Your task to perform on an android device: Open the map Image 0: 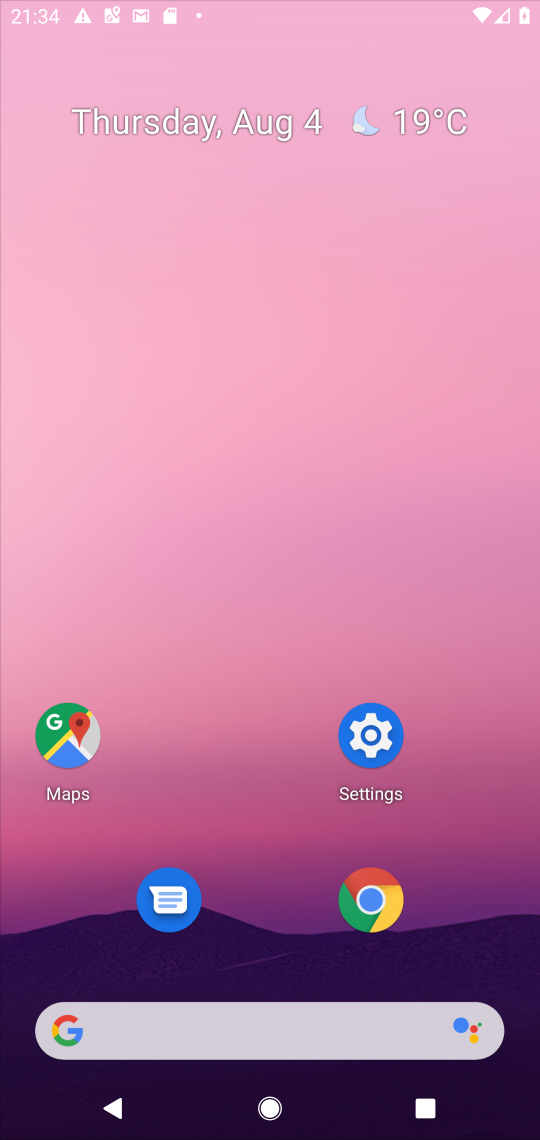
Step 0: press home button
Your task to perform on an android device: Open the map Image 1: 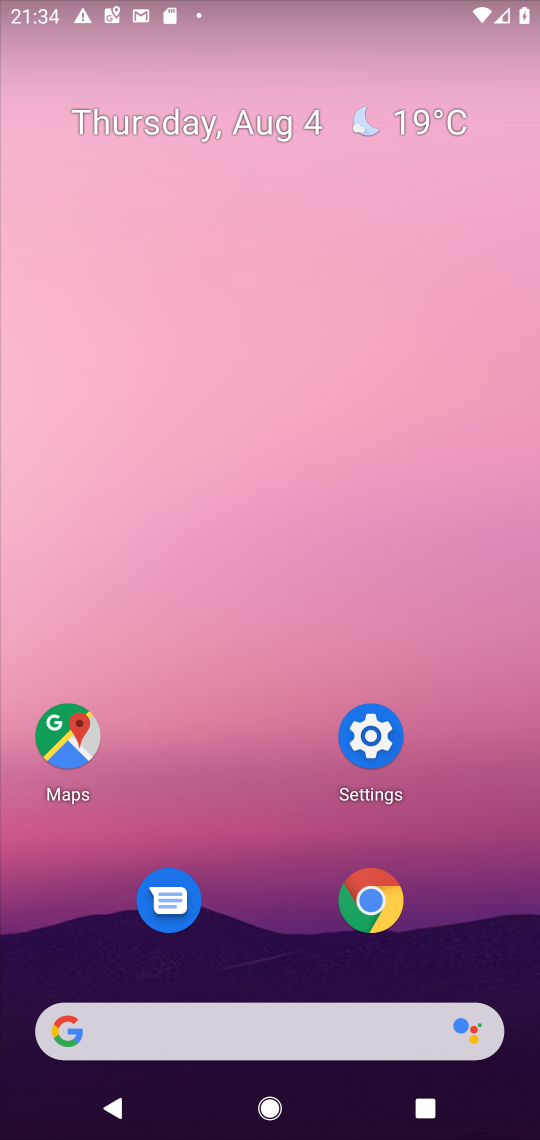
Step 1: click (68, 729)
Your task to perform on an android device: Open the map Image 2: 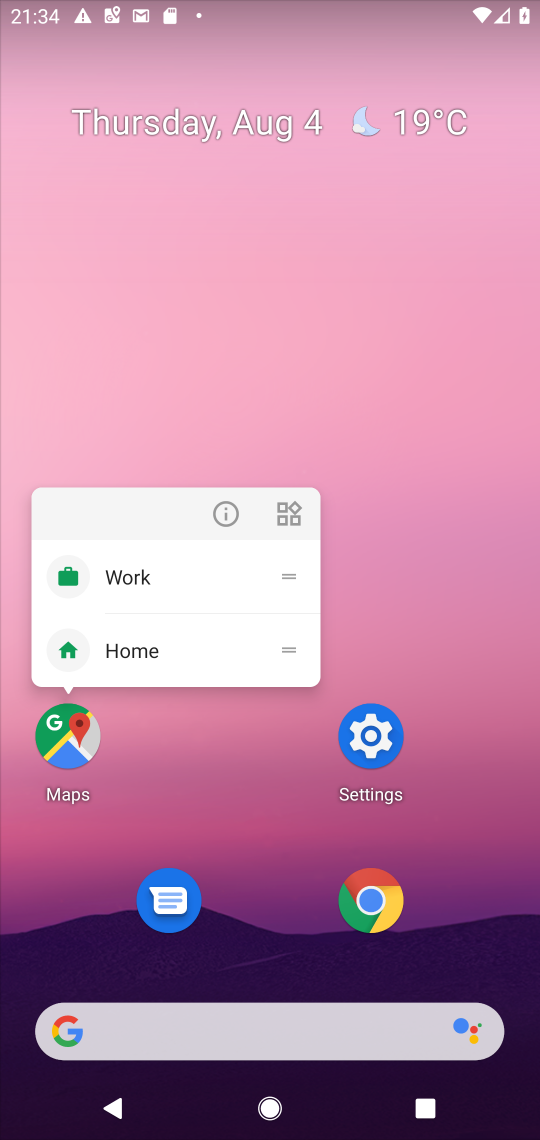
Step 2: click (55, 751)
Your task to perform on an android device: Open the map Image 3: 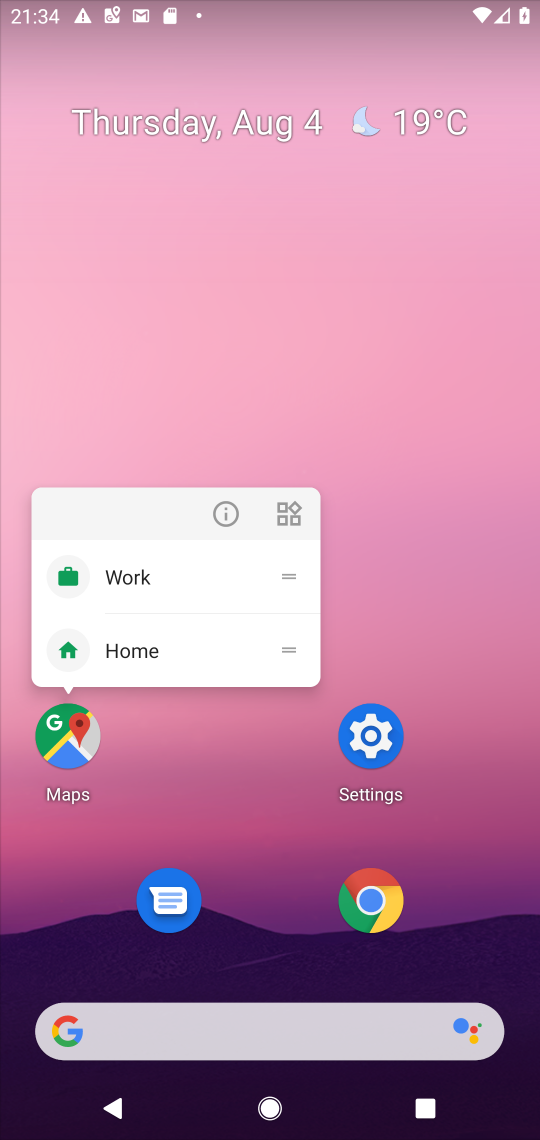
Step 3: click (55, 754)
Your task to perform on an android device: Open the map Image 4: 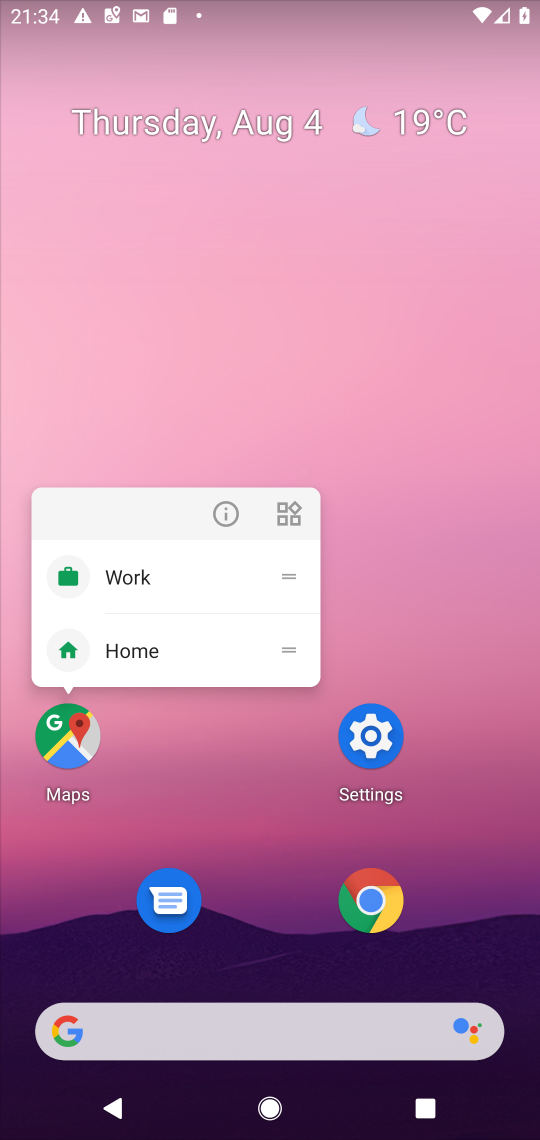
Step 4: click (72, 733)
Your task to perform on an android device: Open the map Image 5: 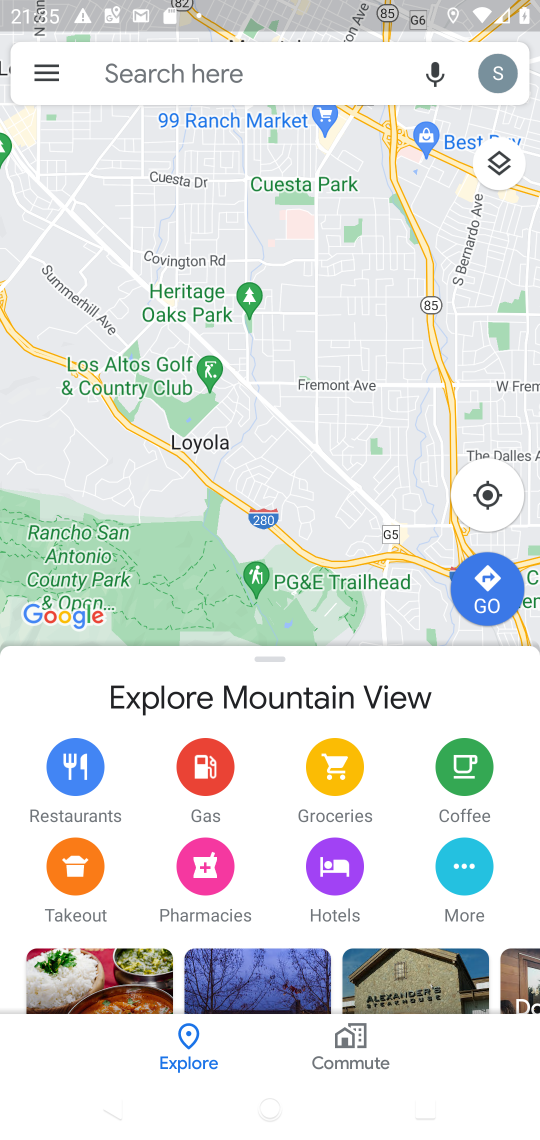
Step 5: task complete